Your task to perform on an android device: Check the weather Image 0: 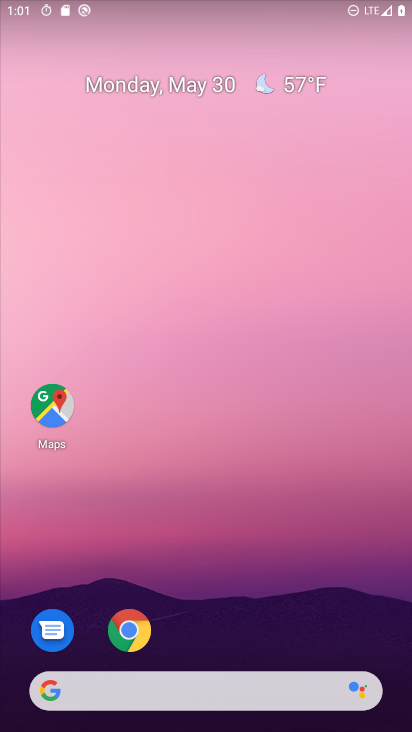
Step 0: press home button
Your task to perform on an android device: Check the weather Image 1: 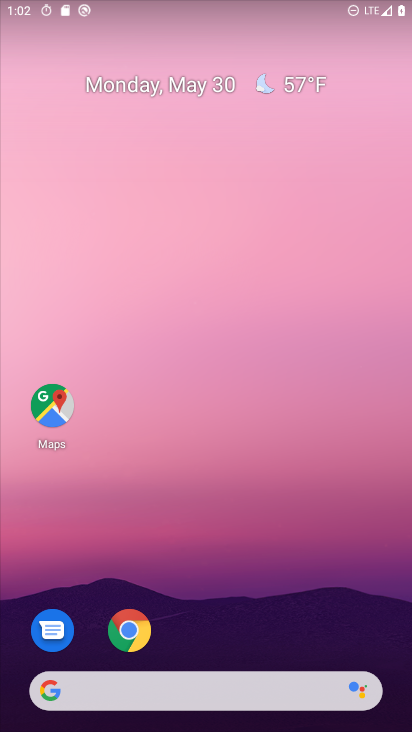
Step 1: drag from (223, 713) to (169, 122)
Your task to perform on an android device: Check the weather Image 2: 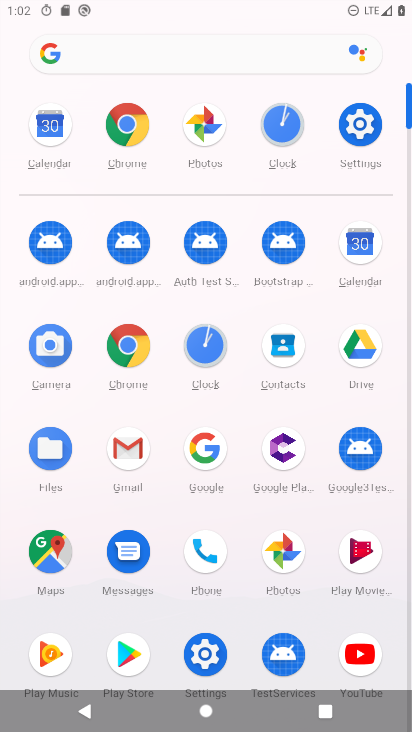
Step 2: click (126, 48)
Your task to perform on an android device: Check the weather Image 3: 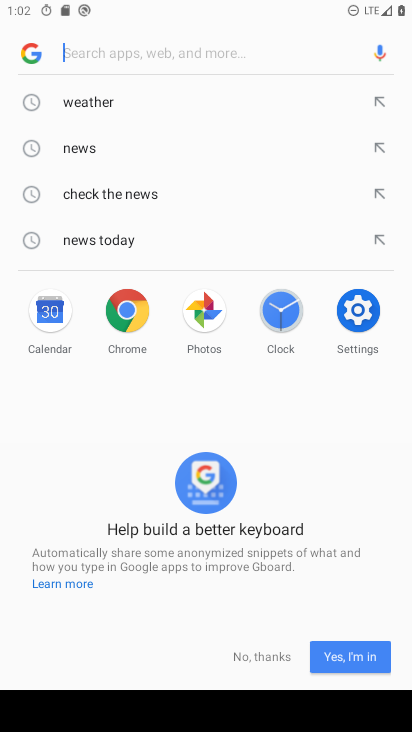
Step 3: click (120, 102)
Your task to perform on an android device: Check the weather Image 4: 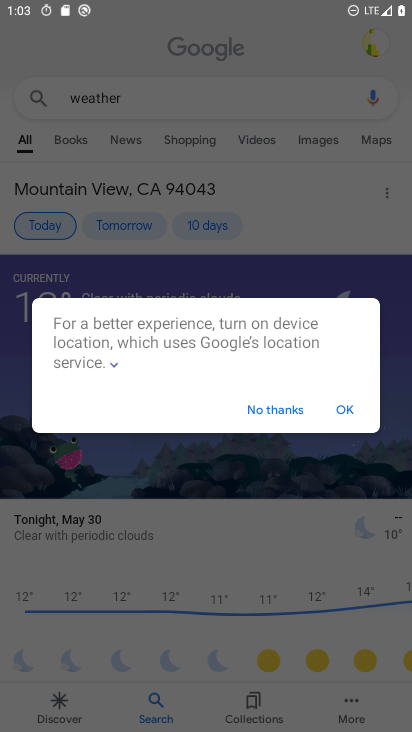
Step 4: click (352, 400)
Your task to perform on an android device: Check the weather Image 5: 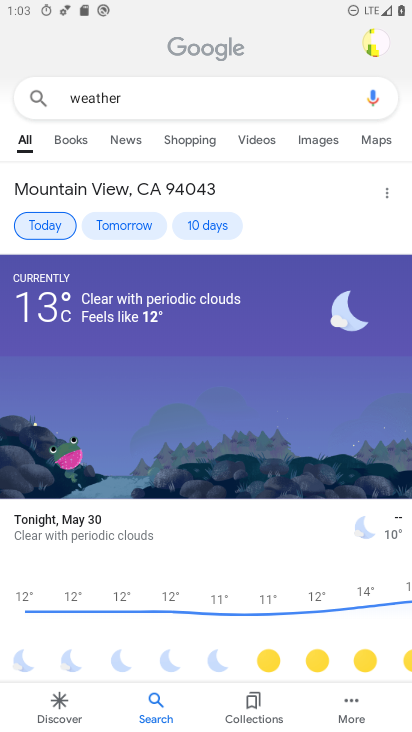
Step 5: task complete